Your task to perform on an android device: empty trash in google photos Image 0: 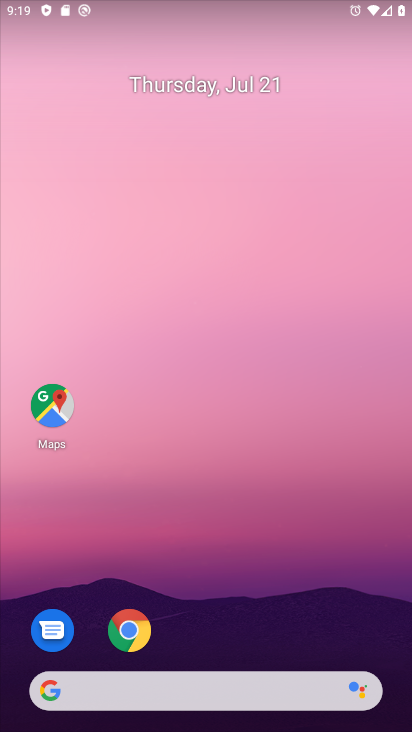
Step 0: drag from (227, 727) to (219, 162)
Your task to perform on an android device: empty trash in google photos Image 1: 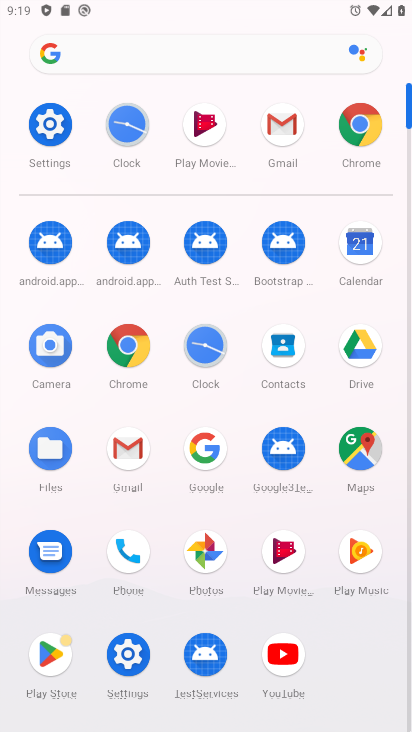
Step 1: click (212, 546)
Your task to perform on an android device: empty trash in google photos Image 2: 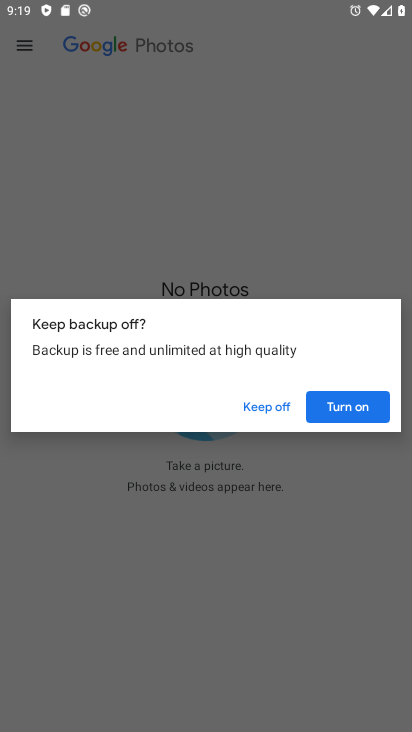
Step 2: click (281, 406)
Your task to perform on an android device: empty trash in google photos Image 3: 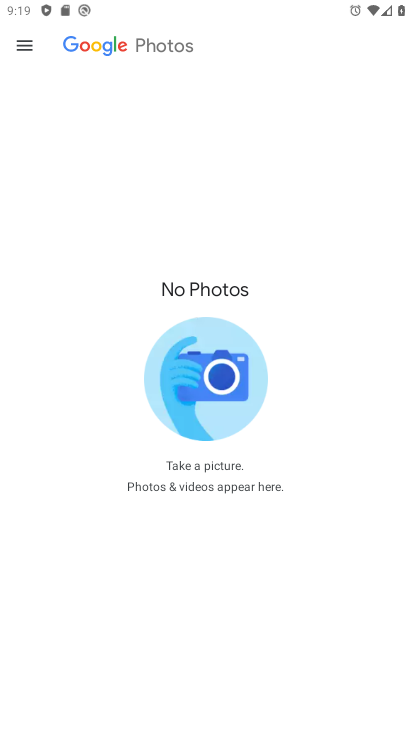
Step 3: click (23, 44)
Your task to perform on an android device: empty trash in google photos Image 4: 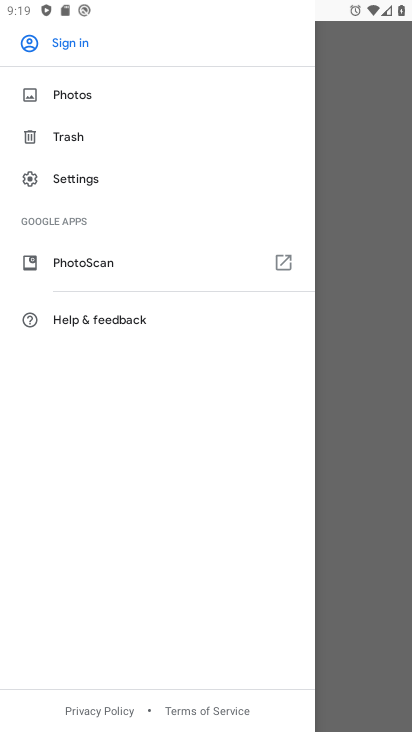
Step 4: click (72, 130)
Your task to perform on an android device: empty trash in google photos Image 5: 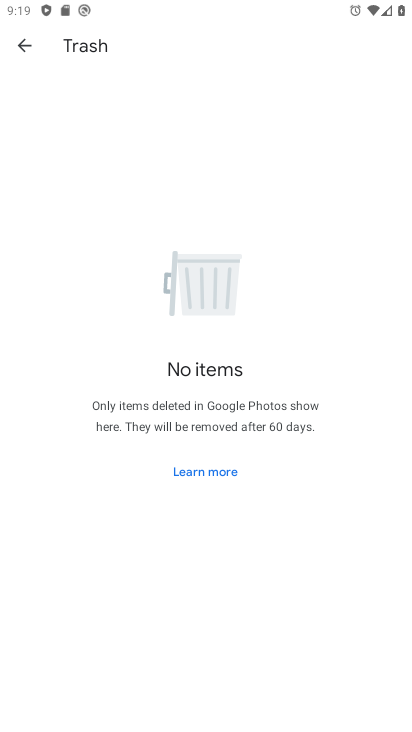
Step 5: task complete